Your task to perform on an android device: toggle notification dots Image 0: 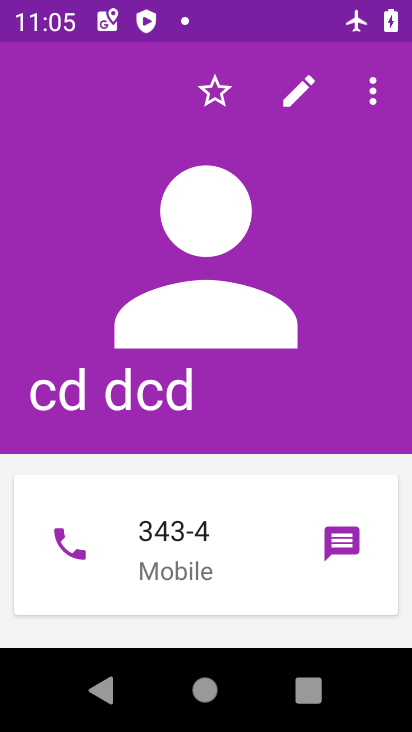
Step 0: press home button
Your task to perform on an android device: toggle notification dots Image 1: 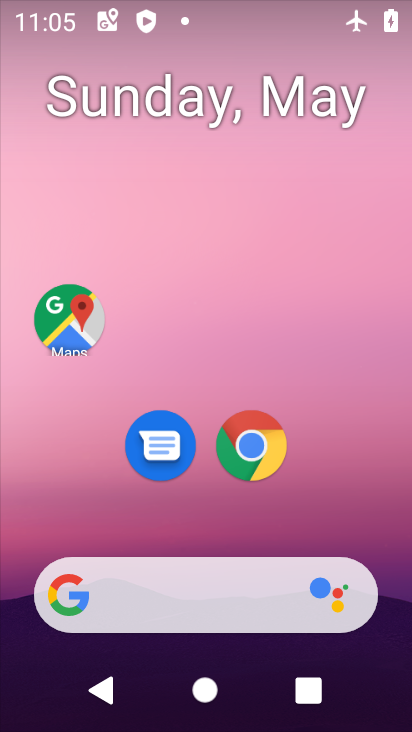
Step 1: drag from (172, 523) to (190, 169)
Your task to perform on an android device: toggle notification dots Image 2: 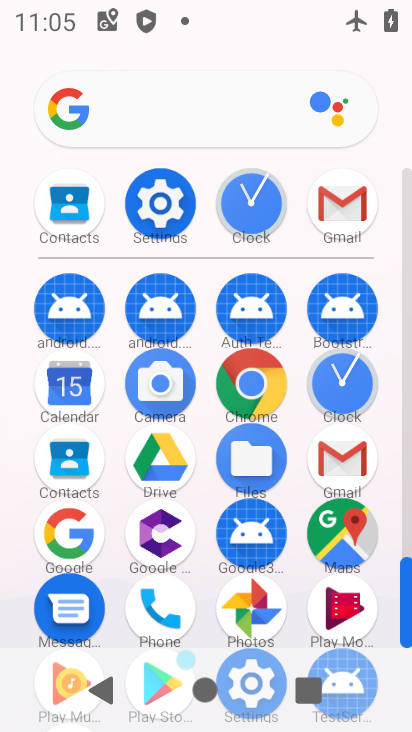
Step 2: click (164, 206)
Your task to perform on an android device: toggle notification dots Image 3: 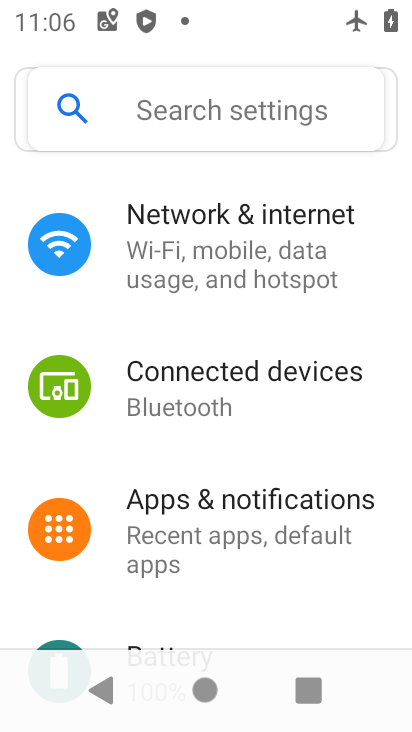
Step 3: click (208, 499)
Your task to perform on an android device: toggle notification dots Image 4: 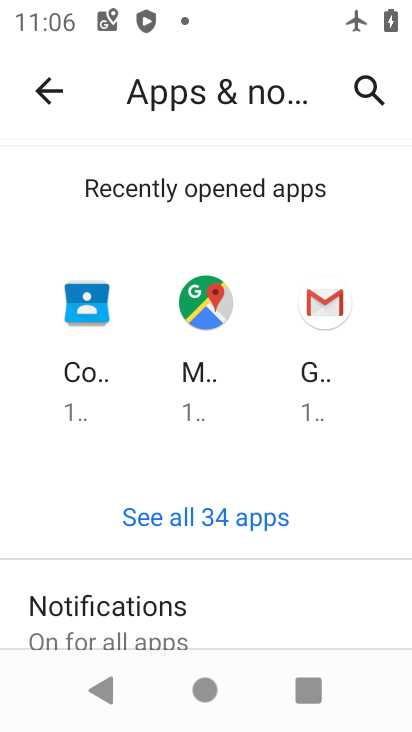
Step 4: click (155, 619)
Your task to perform on an android device: toggle notification dots Image 5: 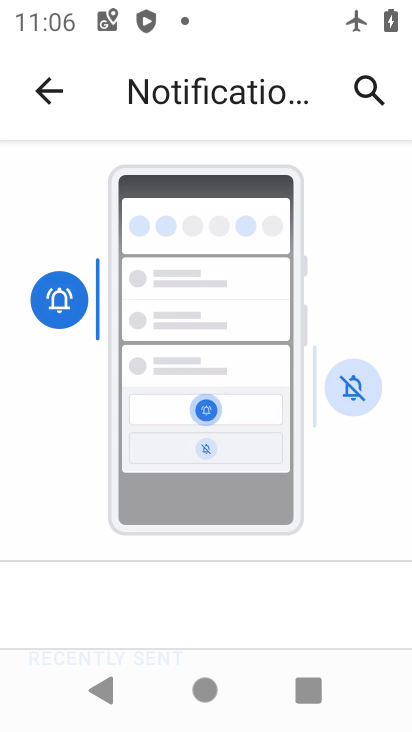
Step 5: drag from (221, 587) to (312, 193)
Your task to perform on an android device: toggle notification dots Image 6: 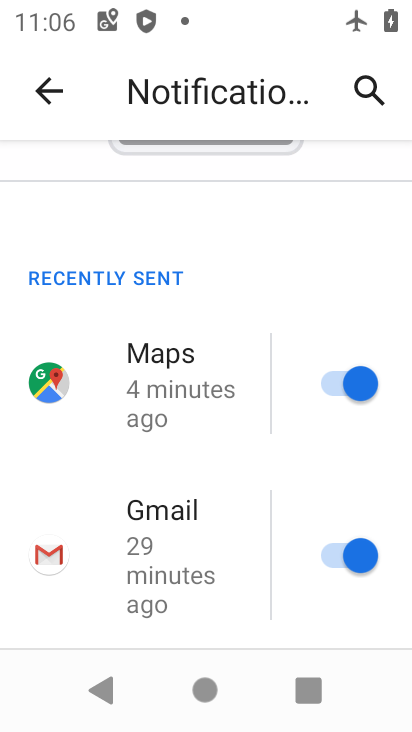
Step 6: drag from (270, 551) to (350, 149)
Your task to perform on an android device: toggle notification dots Image 7: 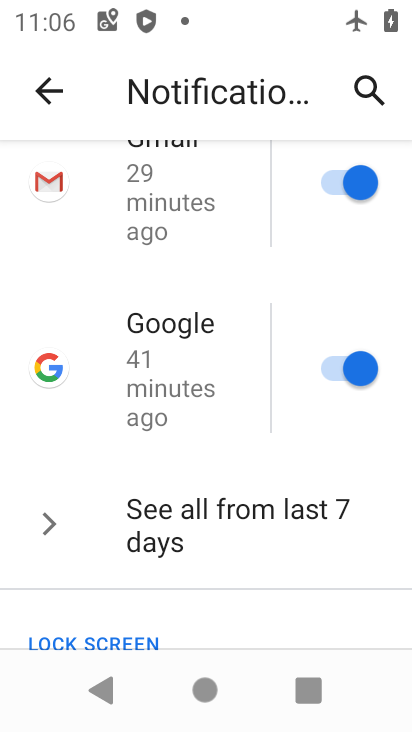
Step 7: drag from (230, 588) to (321, 216)
Your task to perform on an android device: toggle notification dots Image 8: 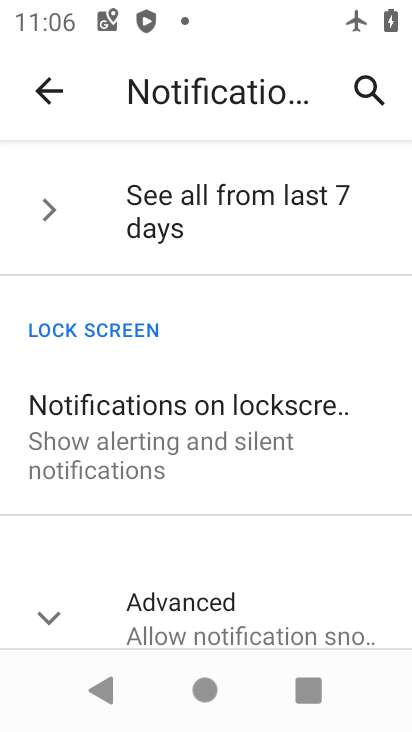
Step 8: click (33, 612)
Your task to perform on an android device: toggle notification dots Image 9: 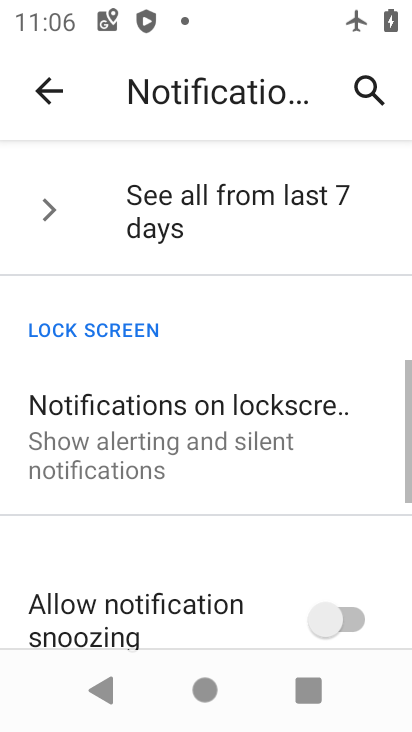
Step 9: drag from (214, 589) to (276, 226)
Your task to perform on an android device: toggle notification dots Image 10: 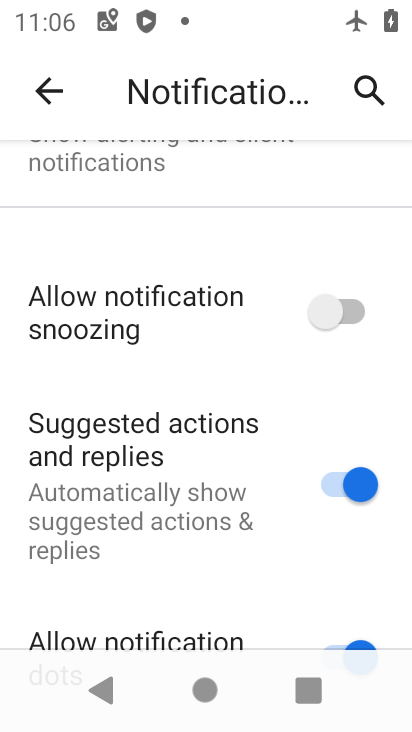
Step 10: drag from (229, 586) to (269, 325)
Your task to perform on an android device: toggle notification dots Image 11: 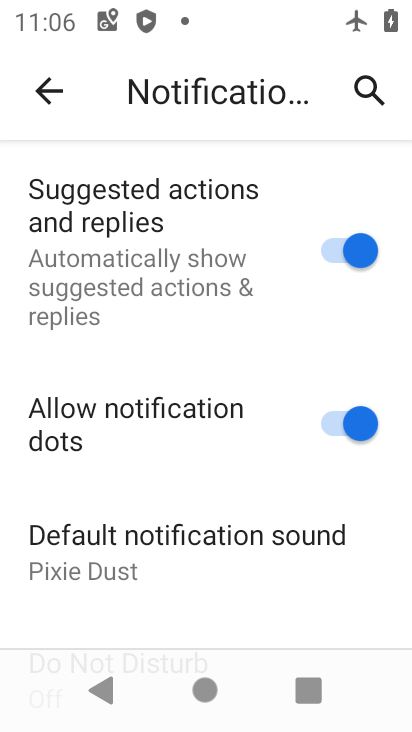
Step 11: click (336, 422)
Your task to perform on an android device: toggle notification dots Image 12: 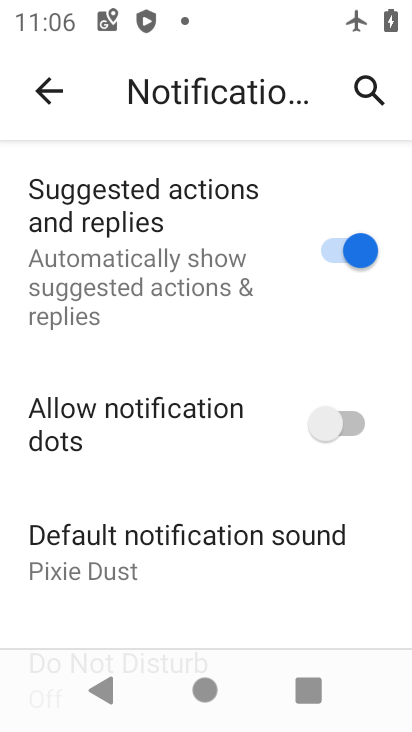
Step 12: task complete